Your task to perform on an android device: Open Youtube and go to "Your channel" Image 0: 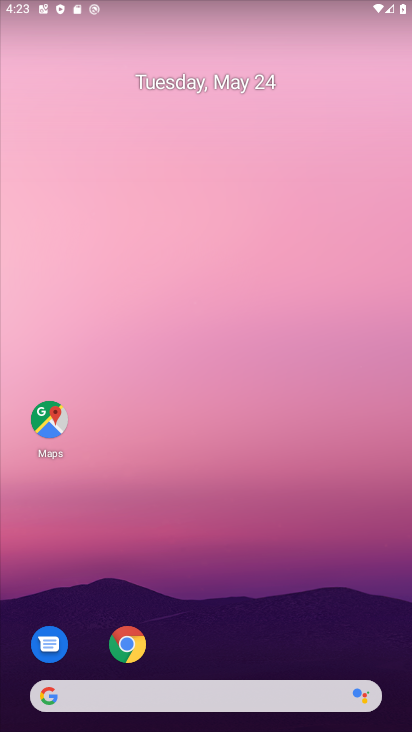
Step 0: drag from (182, 631) to (50, 9)
Your task to perform on an android device: Open Youtube and go to "Your channel" Image 1: 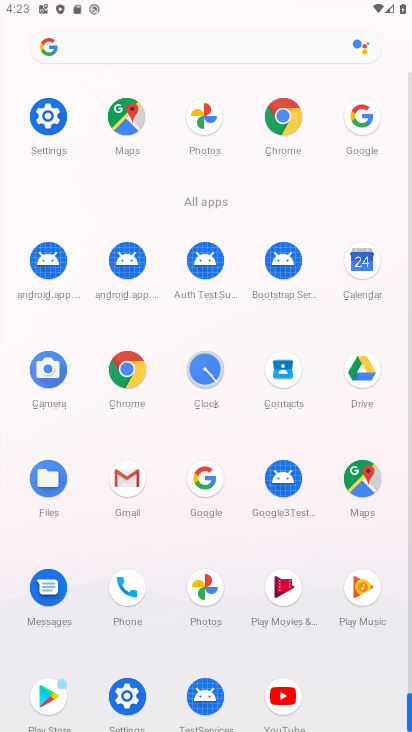
Step 1: click (284, 696)
Your task to perform on an android device: Open Youtube and go to "Your channel" Image 2: 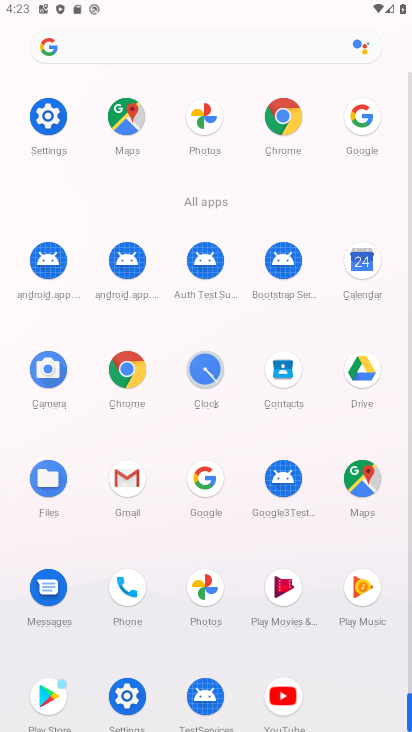
Step 2: click (284, 696)
Your task to perform on an android device: Open Youtube and go to "Your channel" Image 3: 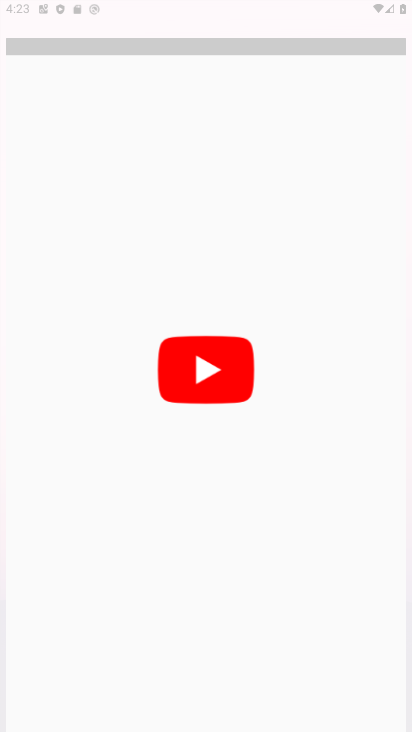
Step 3: click (285, 697)
Your task to perform on an android device: Open Youtube and go to "Your channel" Image 4: 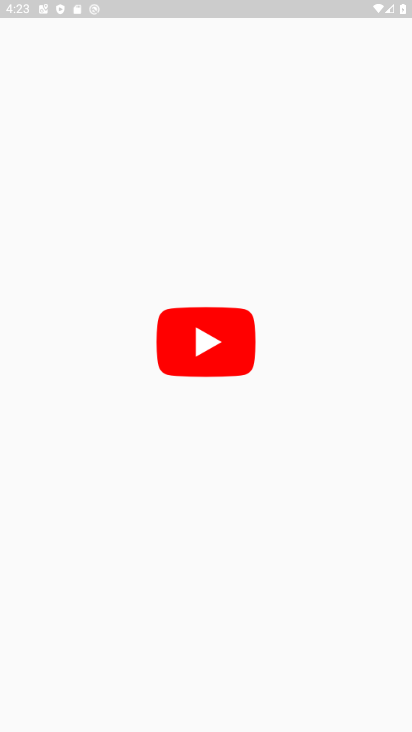
Step 4: click (286, 693)
Your task to perform on an android device: Open Youtube and go to "Your channel" Image 5: 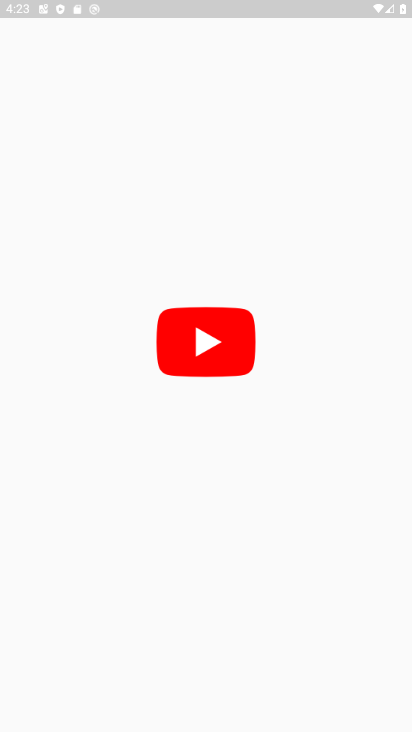
Step 5: click (286, 693)
Your task to perform on an android device: Open Youtube and go to "Your channel" Image 6: 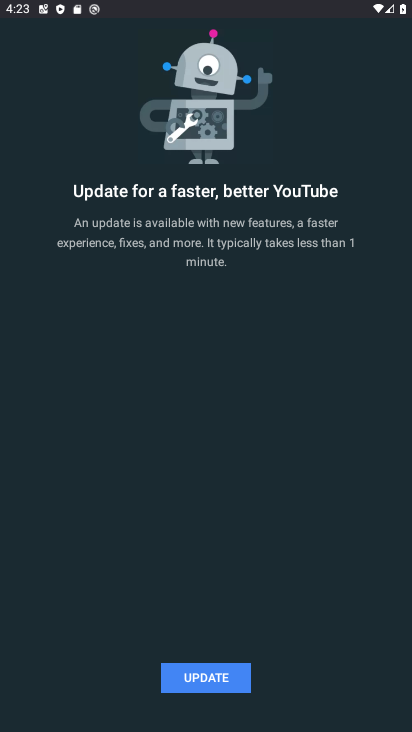
Step 6: click (211, 692)
Your task to perform on an android device: Open Youtube and go to "Your channel" Image 7: 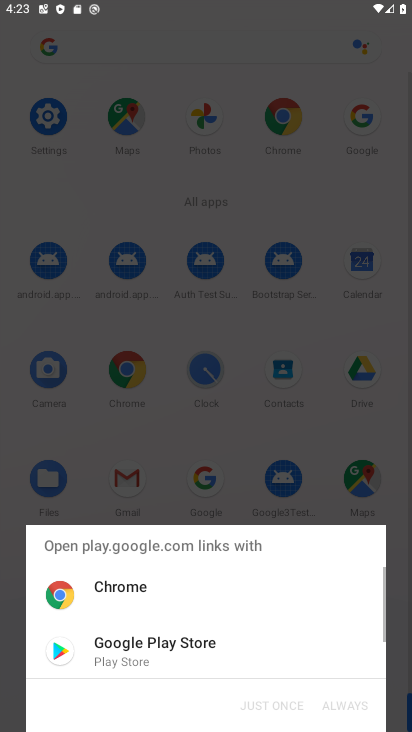
Step 7: click (113, 635)
Your task to perform on an android device: Open Youtube and go to "Your channel" Image 8: 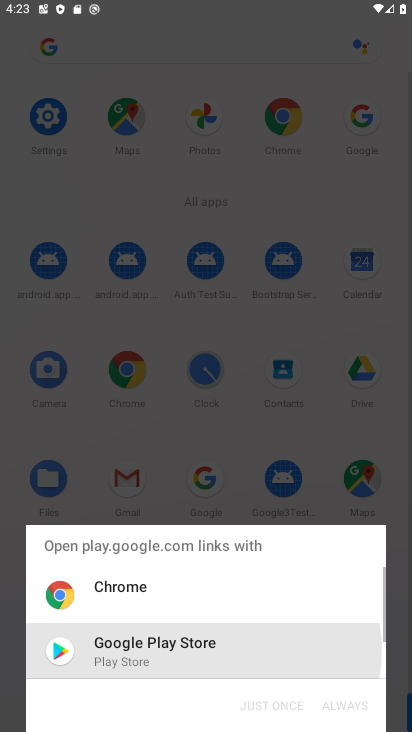
Step 8: click (113, 635)
Your task to perform on an android device: Open Youtube and go to "Your channel" Image 9: 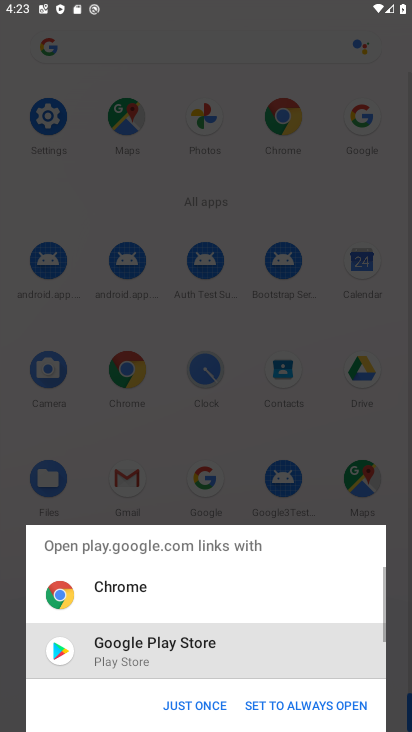
Step 9: click (113, 635)
Your task to perform on an android device: Open Youtube and go to "Your channel" Image 10: 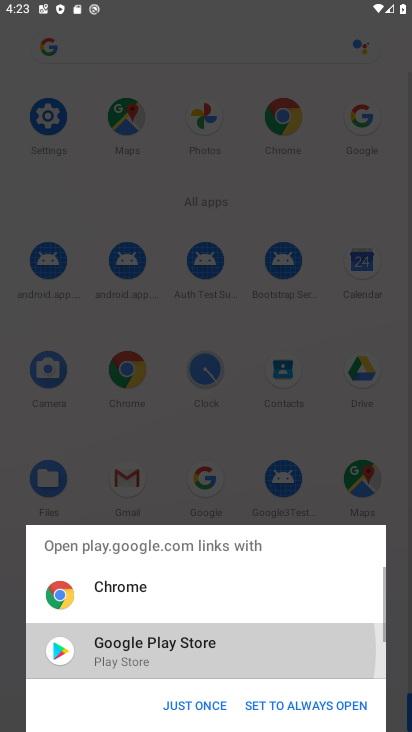
Step 10: click (114, 637)
Your task to perform on an android device: Open Youtube and go to "Your channel" Image 11: 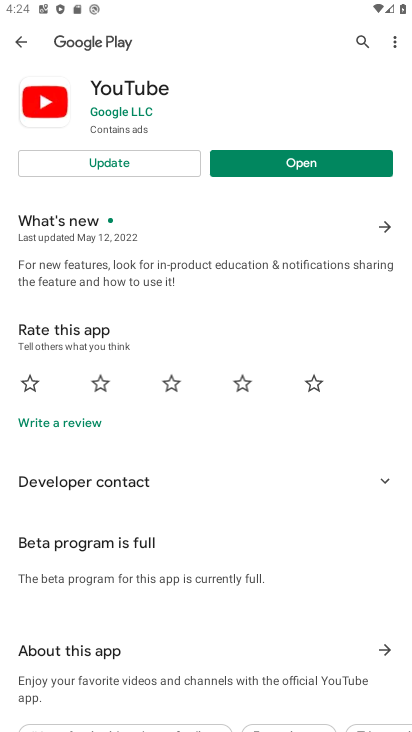
Step 11: click (104, 163)
Your task to perform on an android device: Open Youtube and go to "Your channel" Image 12: 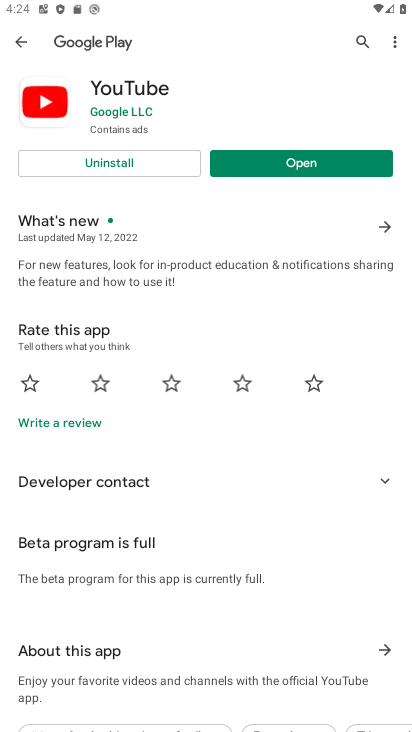
Step 12: click (312, 160)
Your task to perform on an android device: Open Youtube and go to "Your channel" Image 13: 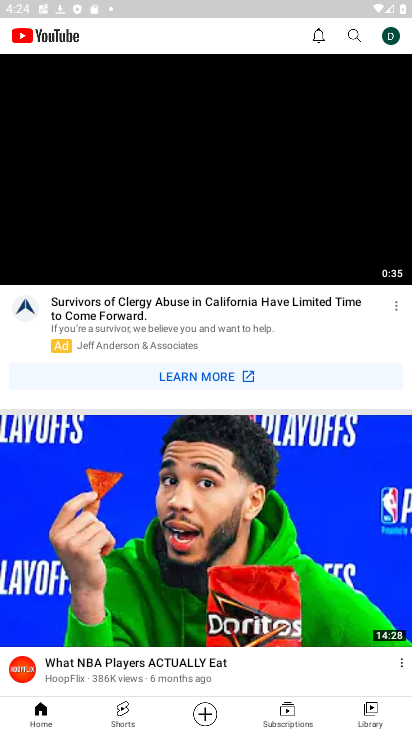
Step 13: task complete